Your task to perform on an android device: Open Google Maps and go to "Timeline" Image 0: 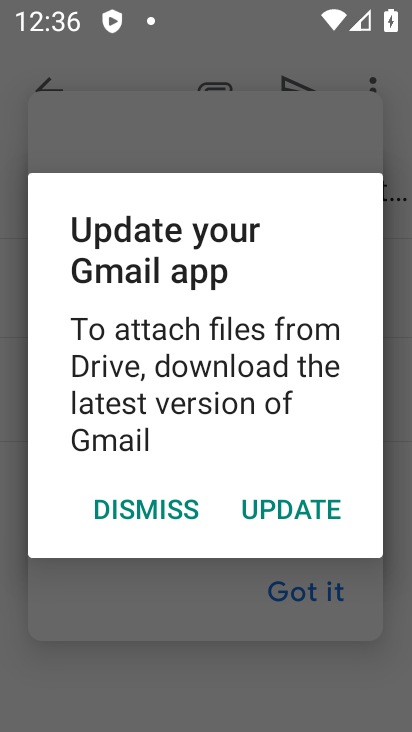
Step 0: press home button
Your task to perform on an android device: Open Google Maps and go to "Timeline" Image 1: 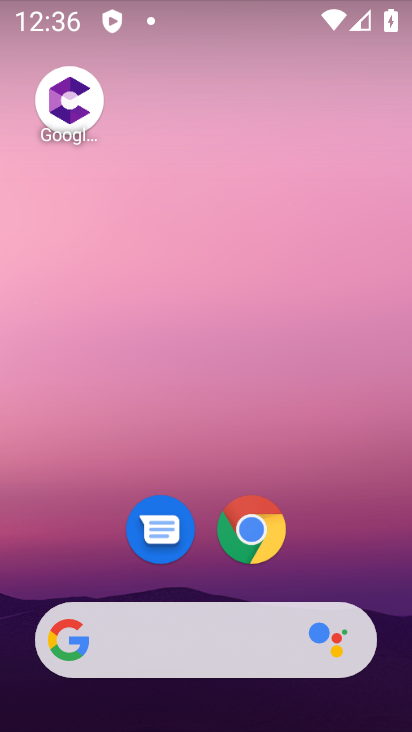
Step 1: drag from (271, 567) to (276, 228)
Your task to perform on an android device: Open Google Maps and go to "Timeline" Image 2: 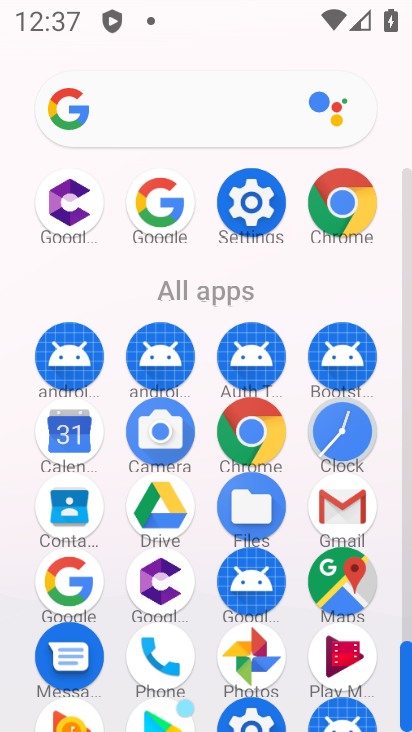
Step 2: click (345, 569)
Your task to perform on an android device: Open Google Maps and go to "Timeline" Image 3: 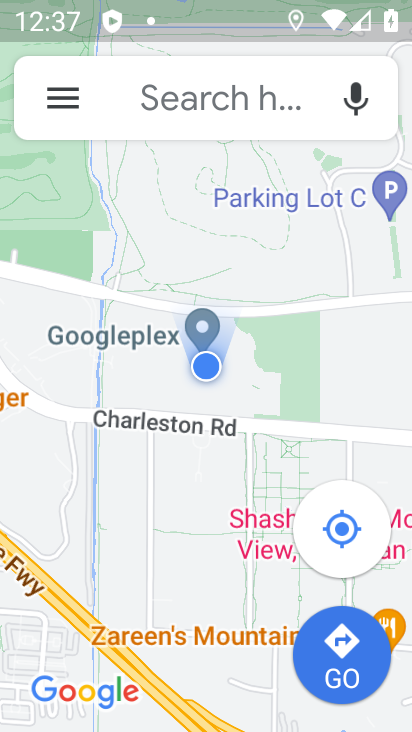
Step 3: click (58, 96)
Your task to perform on an android device: Open Google Maps and go to "Timeline" Image 4: 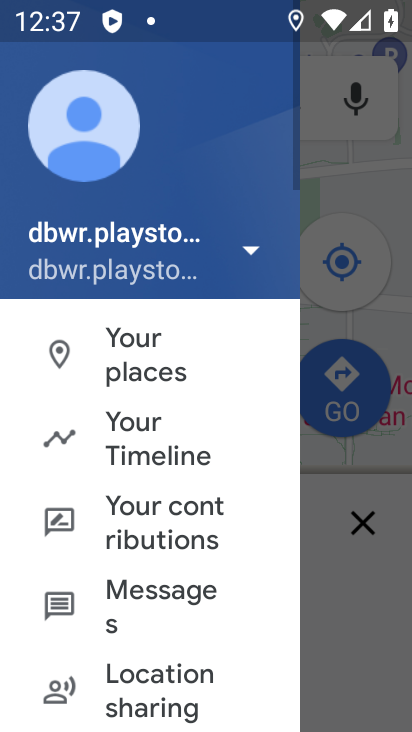
Step 4: click (155, 428)
Your task to perform on an android device: Open Google Maps and go to "Timeline" Image 5: 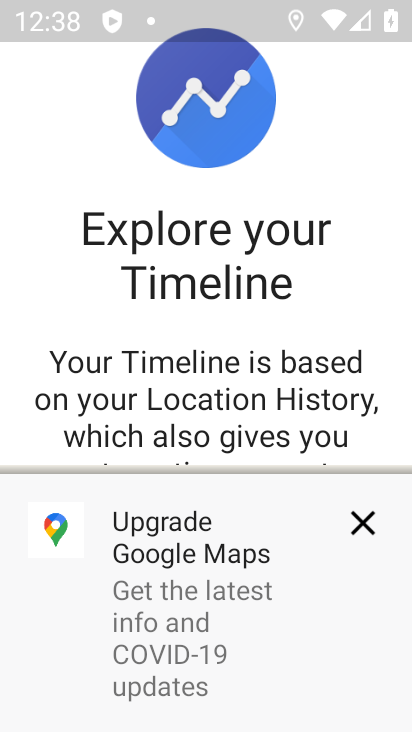
Step 5: click (372, 512)
Your task to perform on an android device: Open Google Maps and go to "Timeline" Image 6: 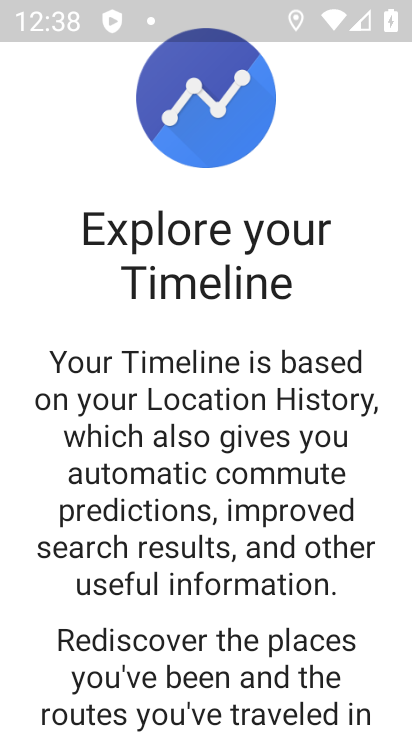
Step 6: task complete